Your task to perform on an android device: Go to internet settings Image 0: 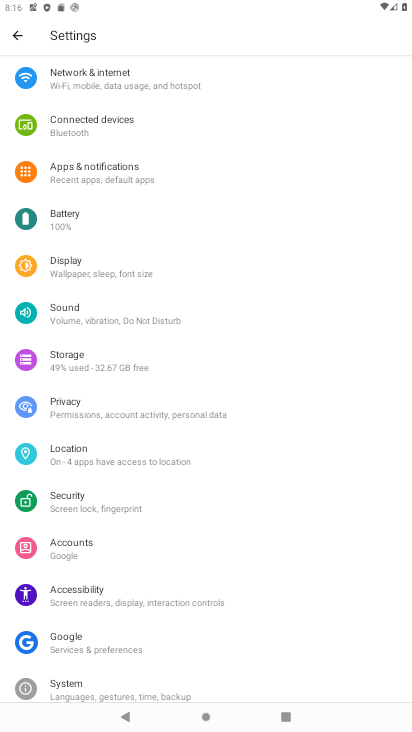
Step 0: click (66, 82)
Your task to perform on an android device: Go to internet settings Image 1: 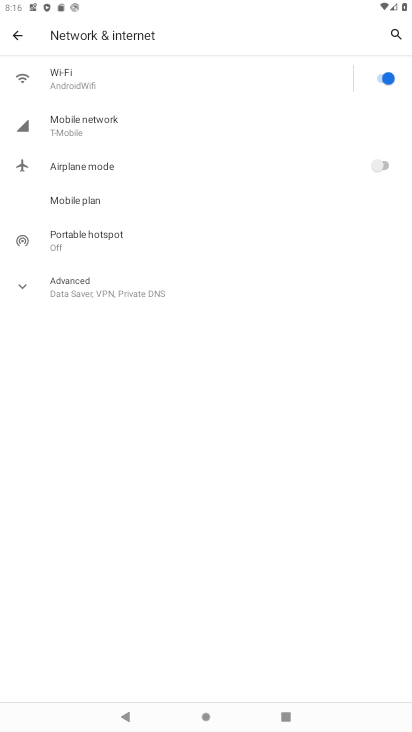
Step 1: task complete